Your task to perform on an android device: Go to privacy settings Image 0: 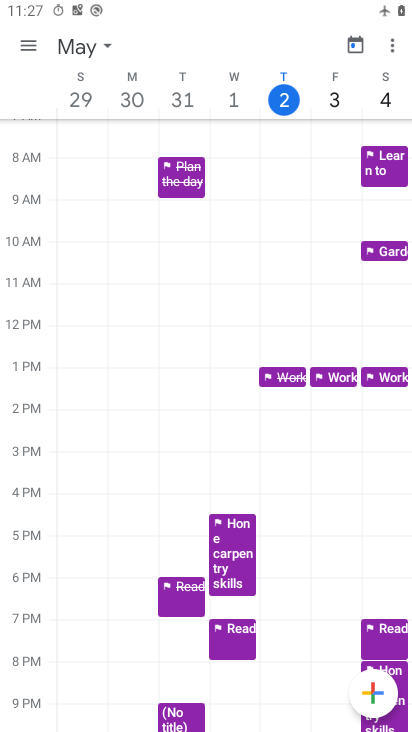
Step 0: press home button
Your task to perform on an android device: Go to privacy settings Image 1: 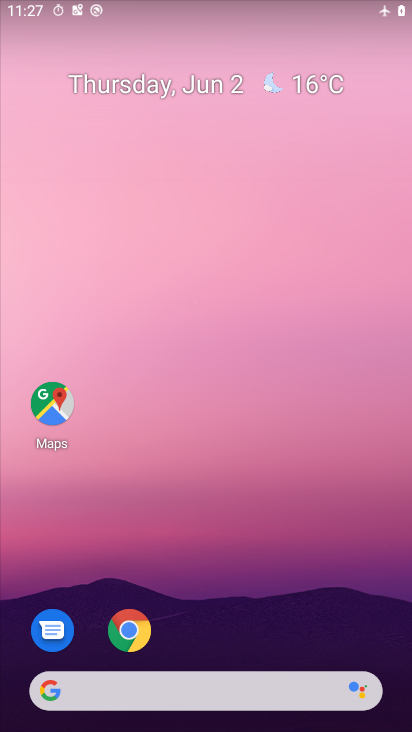
Step 1: drag from (181, 641) to (250, 13)
Your task to perform on an android device: Go to privacy settings Image 2: 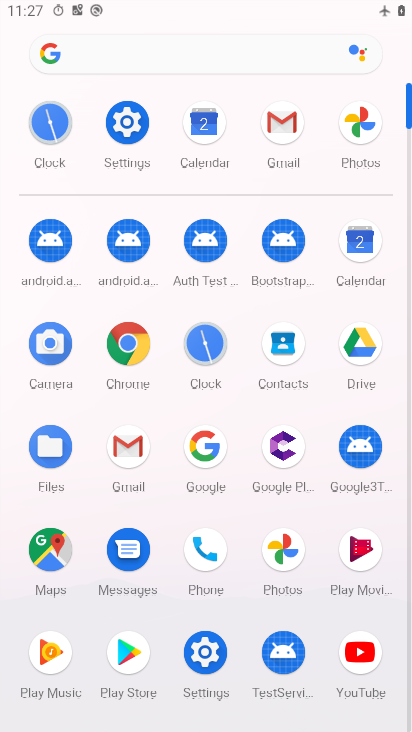
Step 2: click (130, 150)
Your task to perform on an android device: Go to privacy settings Image 3: 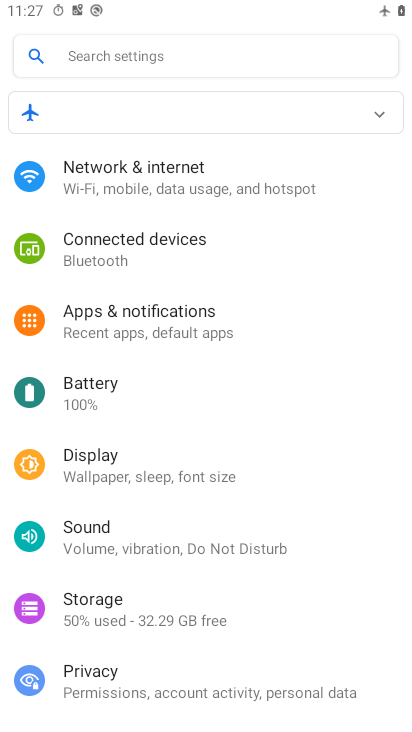
Step 3: click (163, 680)
Your task to perform on an android device: Go to privacy settings Image 4: 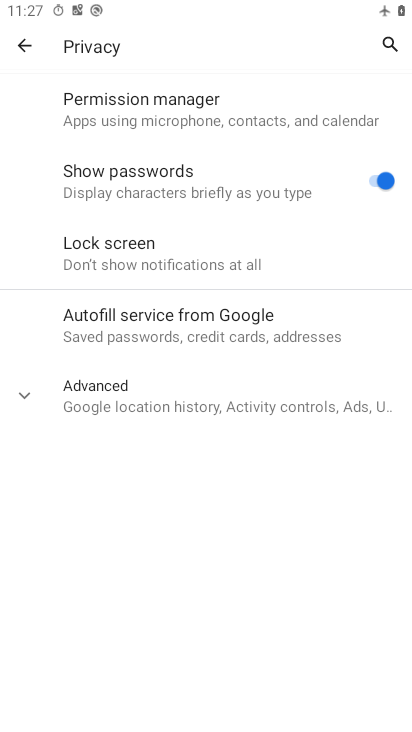
Step 4: task complete